Your task to perform on an android device: open app "File Manager" (install if not already installed) Image 0: 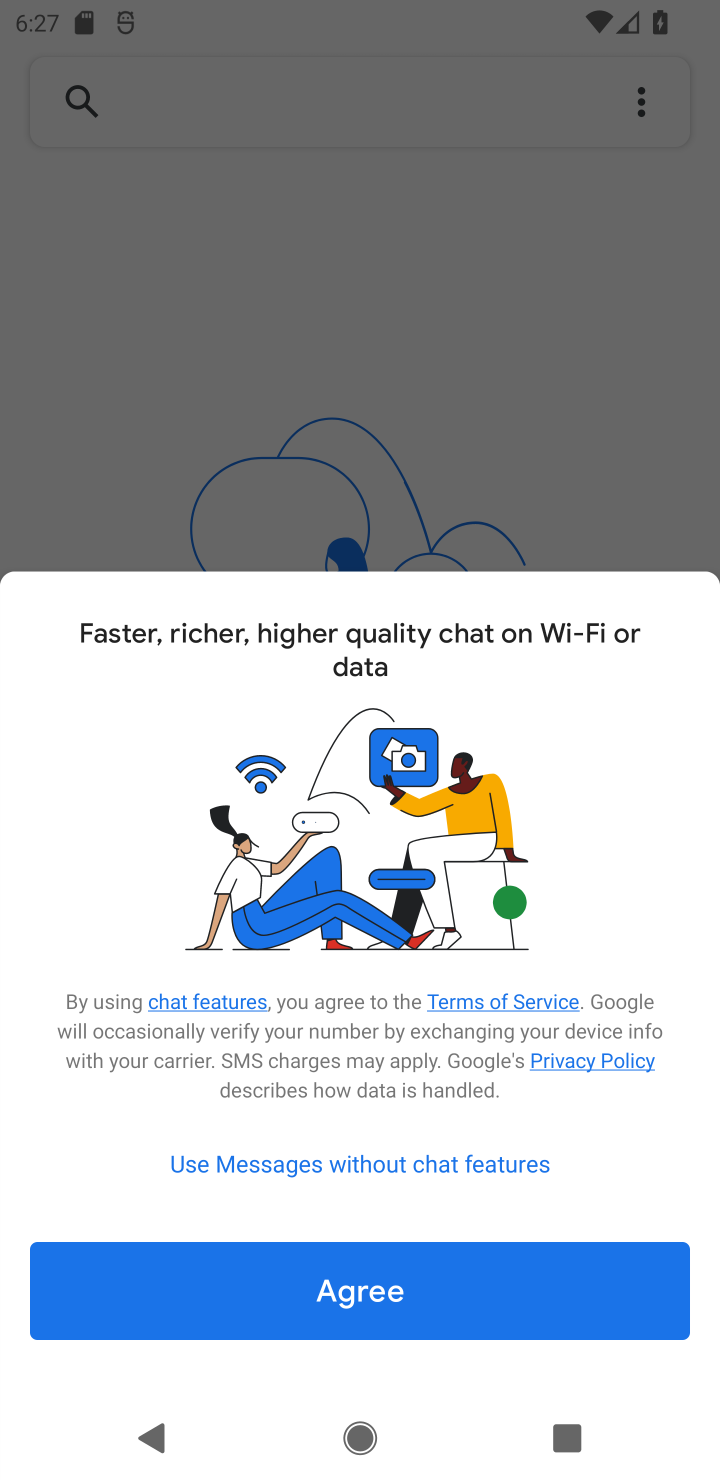
Step 0: press back button
Your task to perform on an android device: open app "File Manager" (install if not already installed) Image 1: 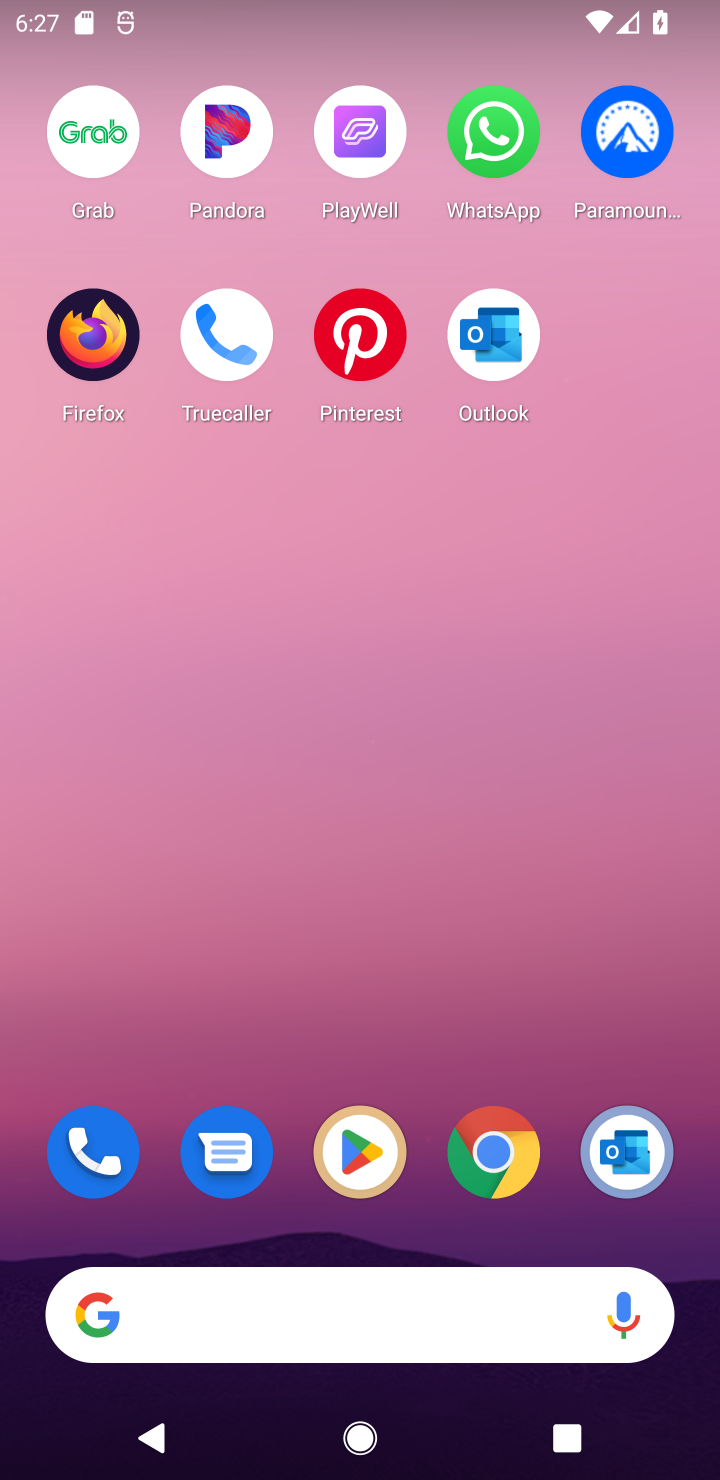
Step 1: click (385, 1146)
Your task to perform on an android device: open app "File Manager" (install if not already installed) Image 2: 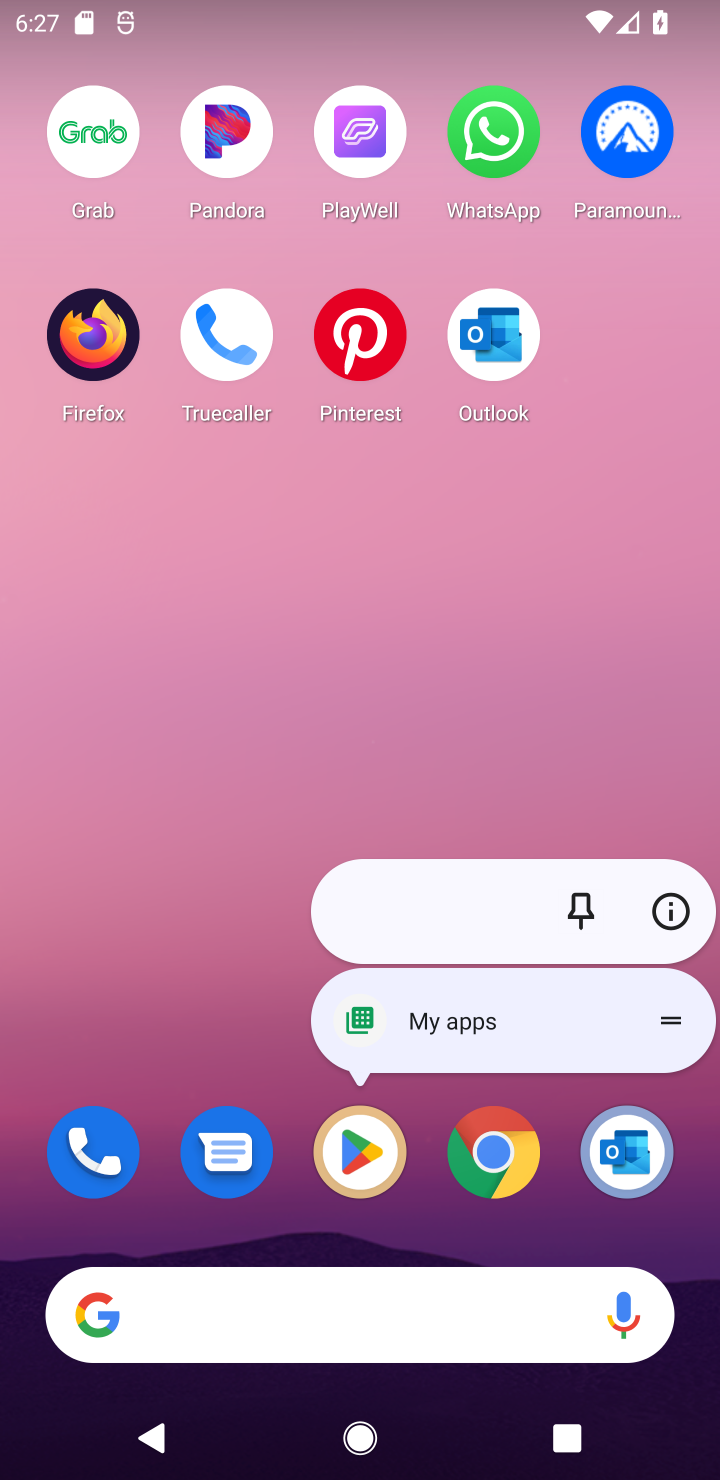
Step 2: click (353, 1150)
Your task to perform on an android device: open app "File Manager" (install if not already installed) Image 3: 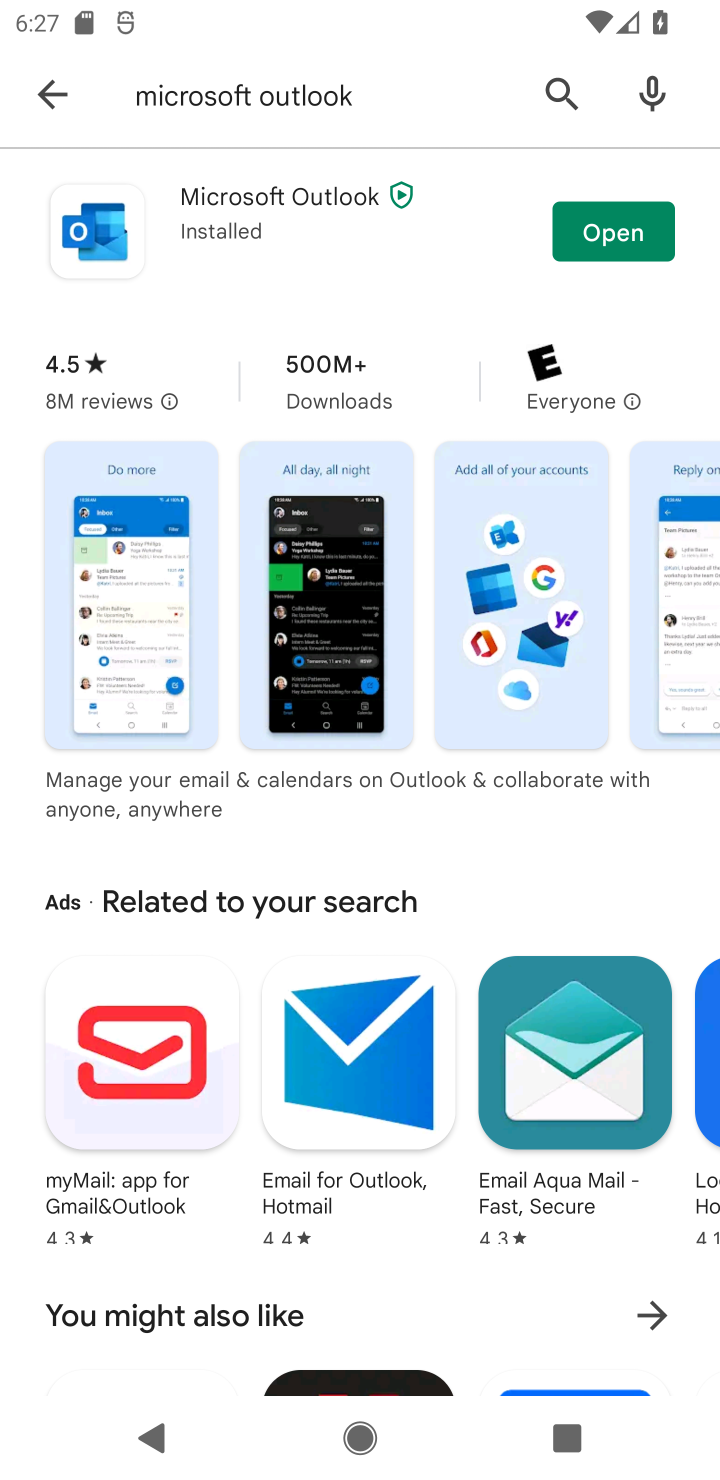
Step 3: click (552, 77)
Your task to perform on an android device: open app "File Manager" (install if not already installed) Image 4: 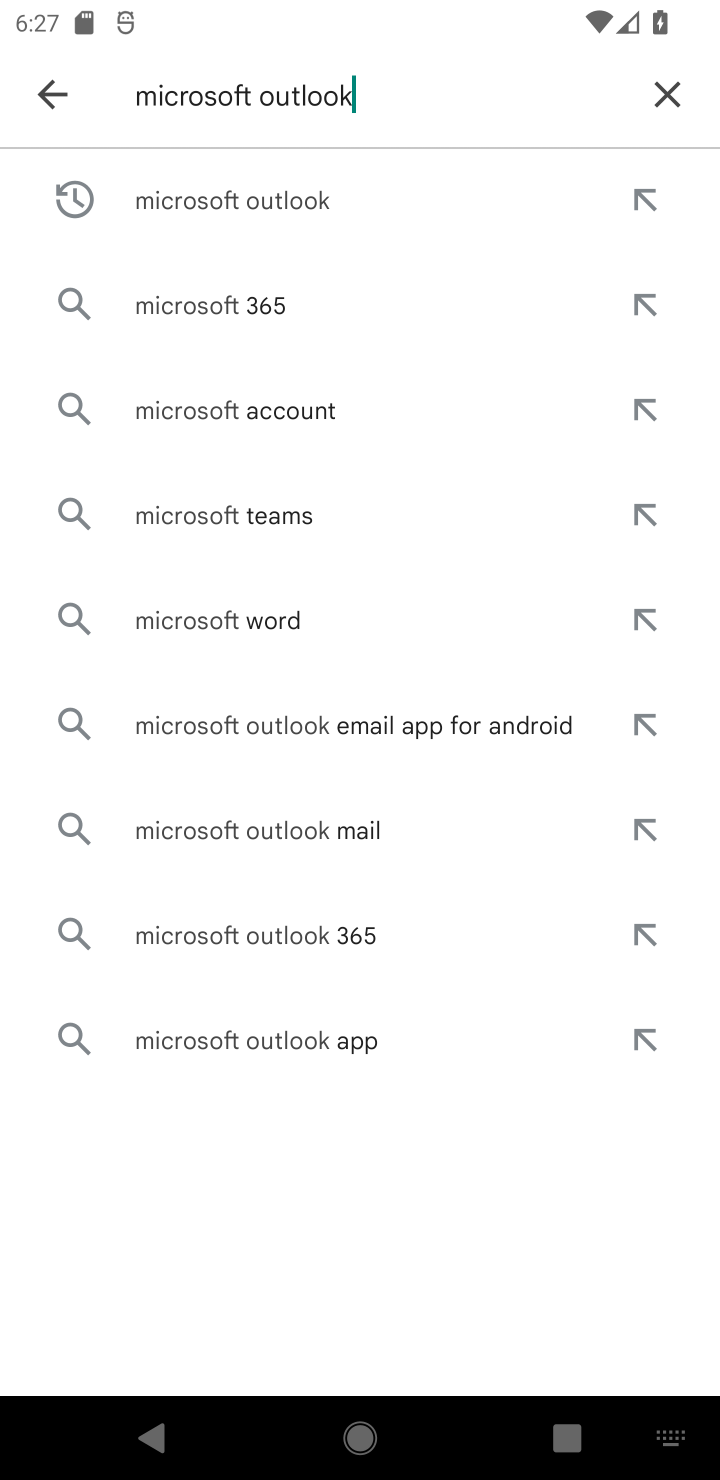
Step 4: click (652, 82)
Your task to perform on an android device: open app "File Manager" (install if not already installed) Image 5: 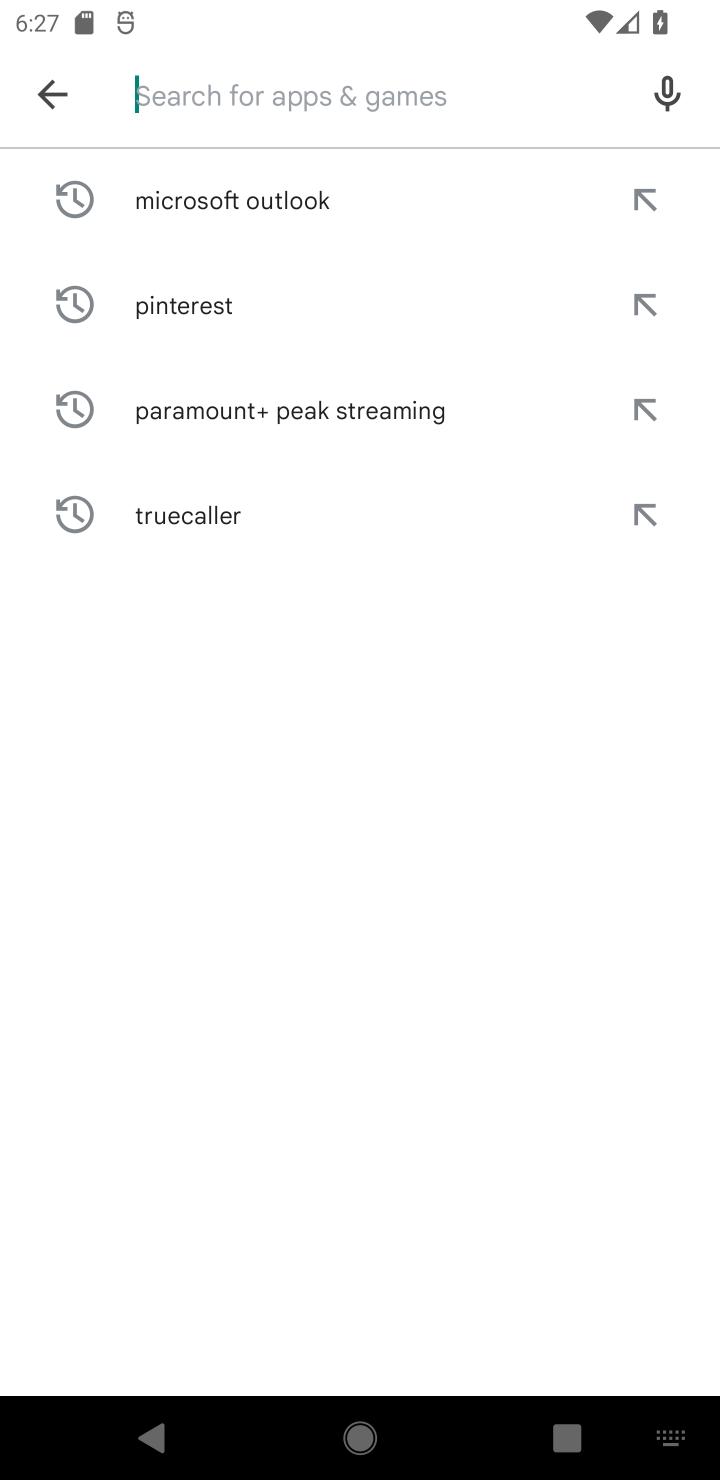
Step 5: click (181, 85)
Your task to perform on an android device: open app "File Manager" (install if not already installed) Image 6: 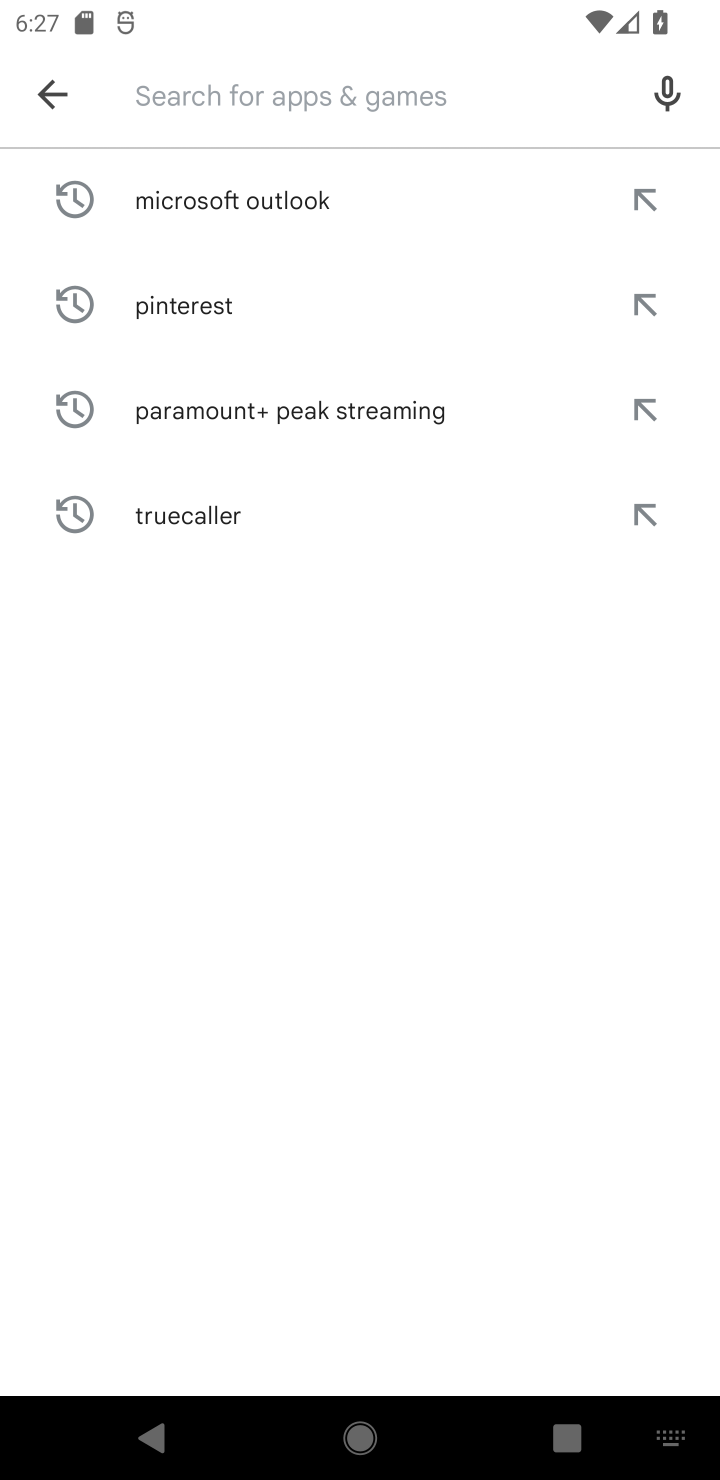
Step 6: type "File Manager"
Your task to perform on an android device: open app "File Manager" (install if not already installed) Image 7: 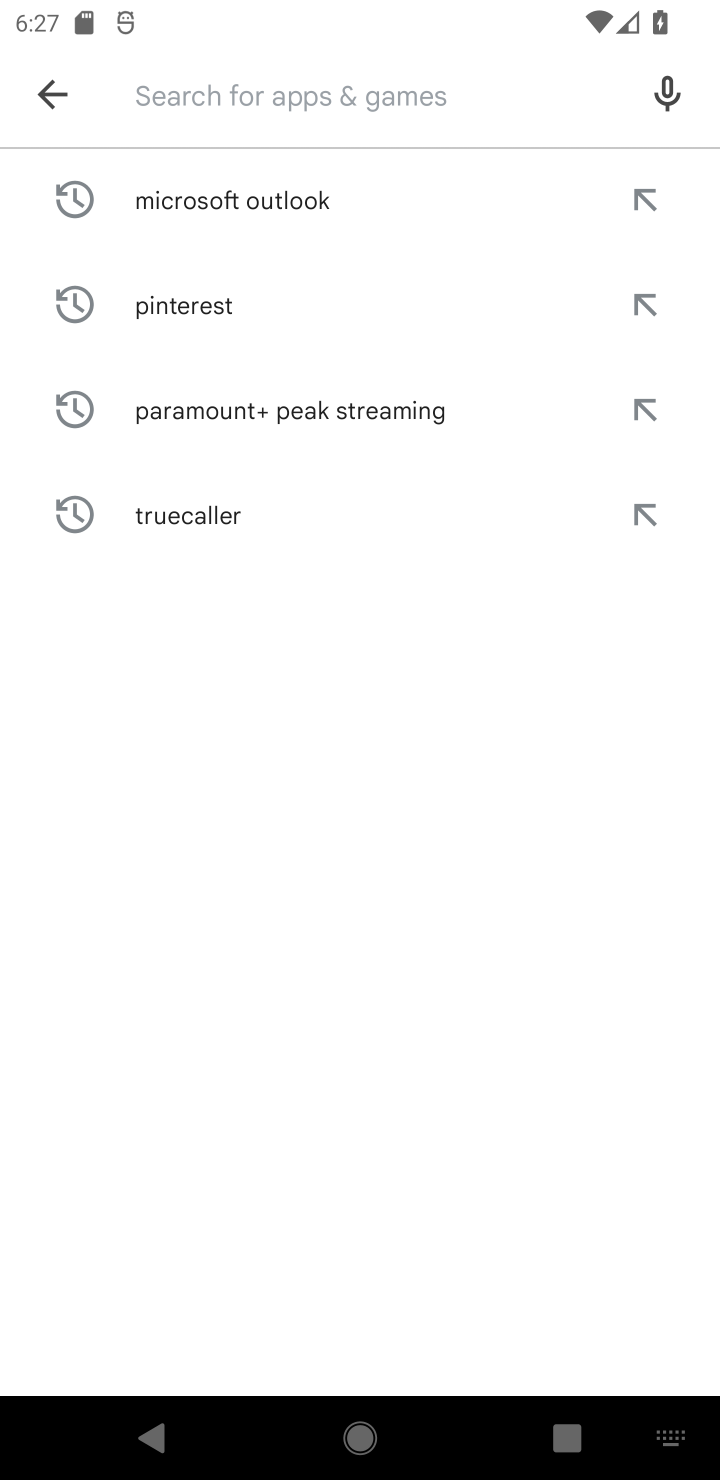
Step 7: click (440, 1171)
Your task to perform on an android device: open app "File Manager" (install if not already installed) Image 8: 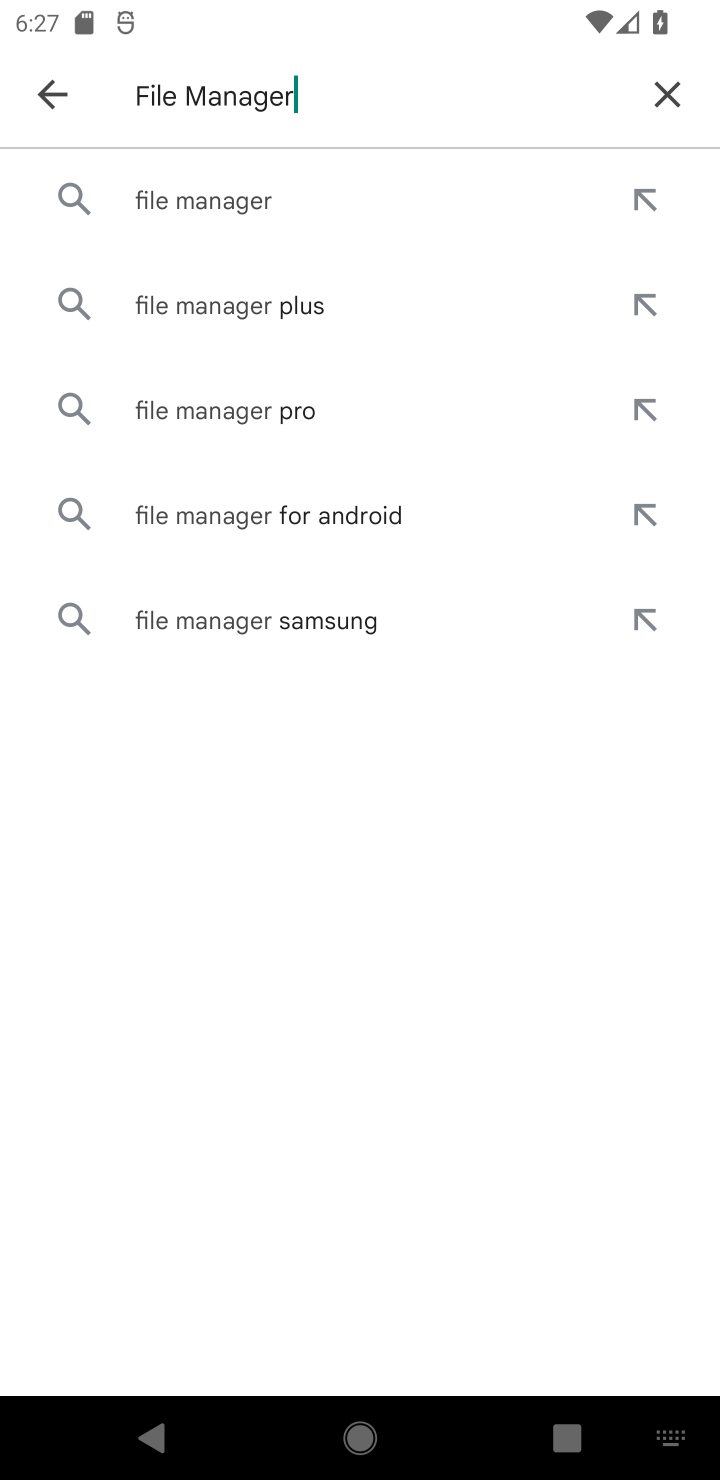
Step 8: click (242, 199)
Your task to perform on an android device: open app "File Manager" (install if not already installed) Image 9: 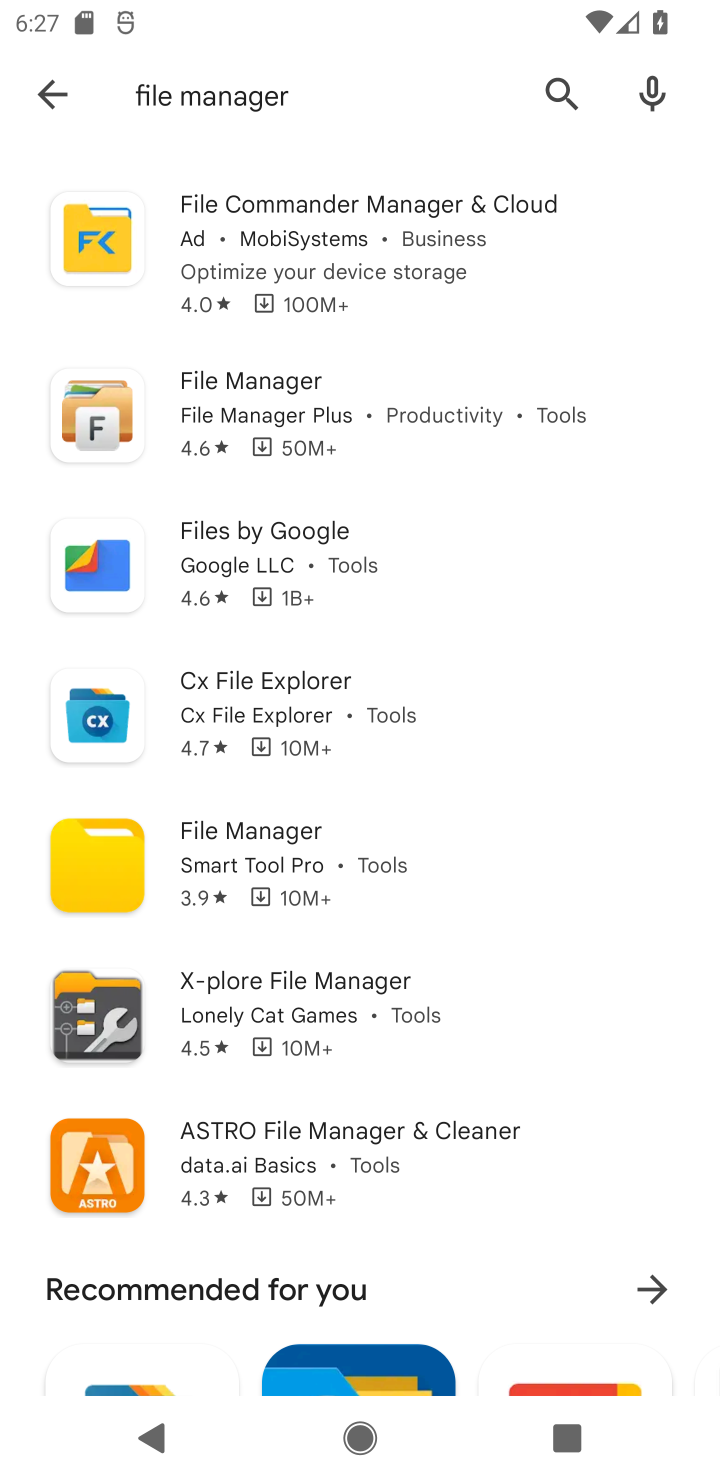
Step 9: click (280, 405)
Your task to perform on an android device: open app "File Manager" (install if not already installed) Image 10: 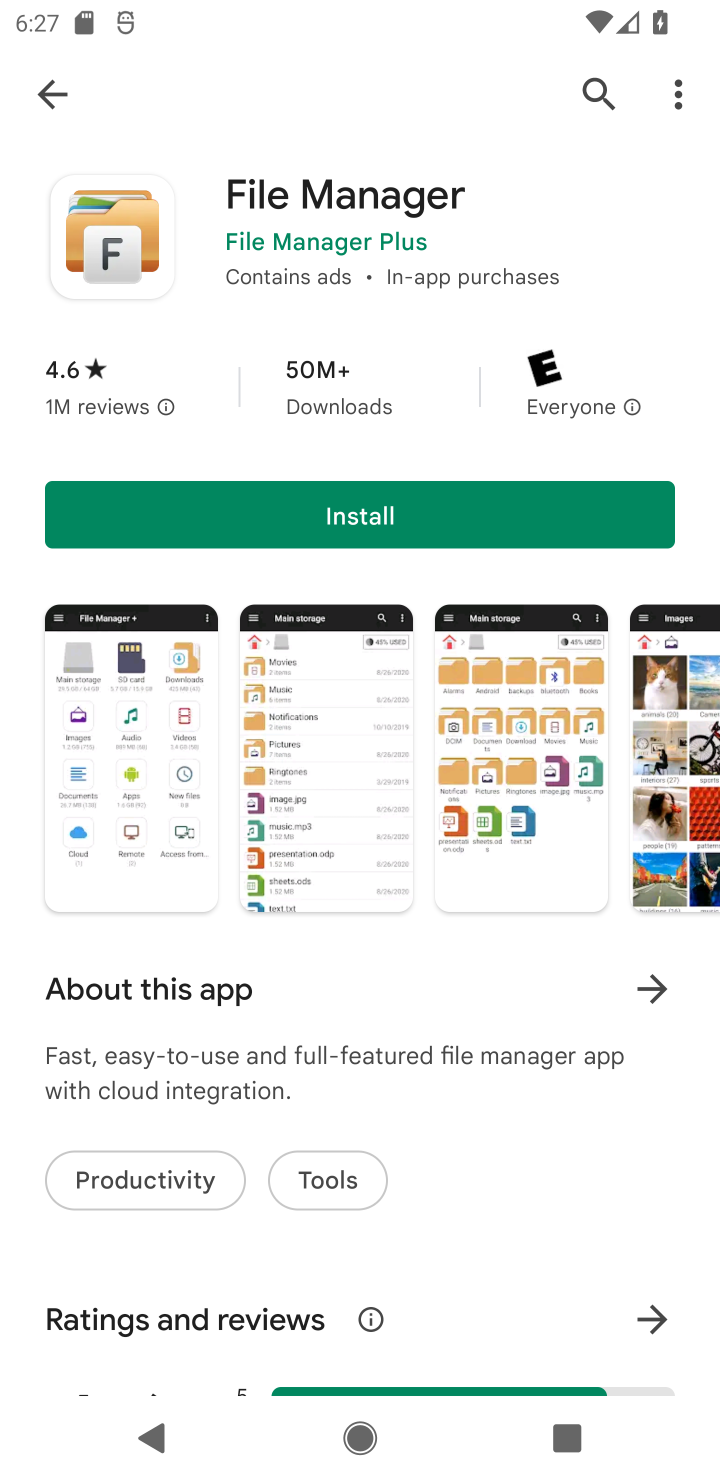
Step 10: click (366, 507)
Your task to perform on an android device: open app "File Manager" (install if not already installed) Image 11: 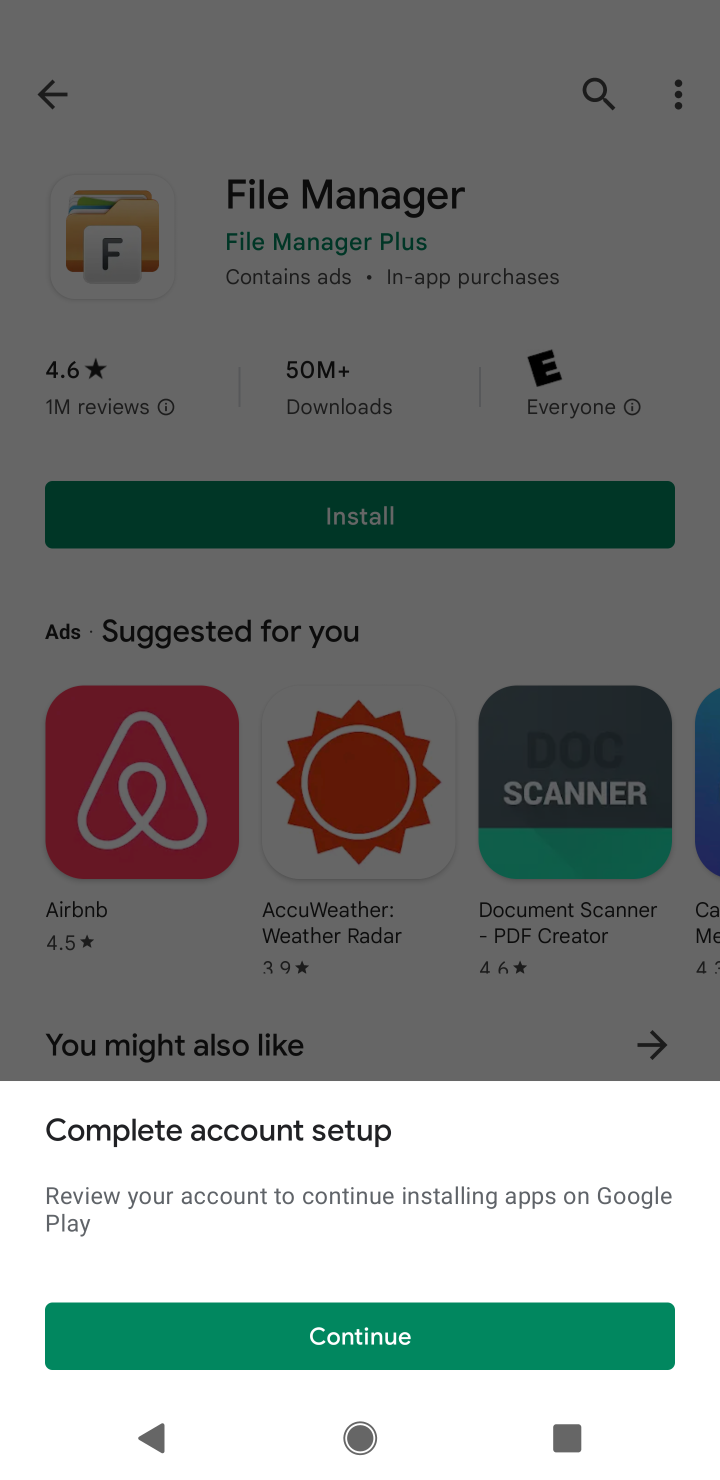
Step 11: click (301, 1349)
Your task to perform on an android device: open app "File Manager" (install if not already installed) Image 12: 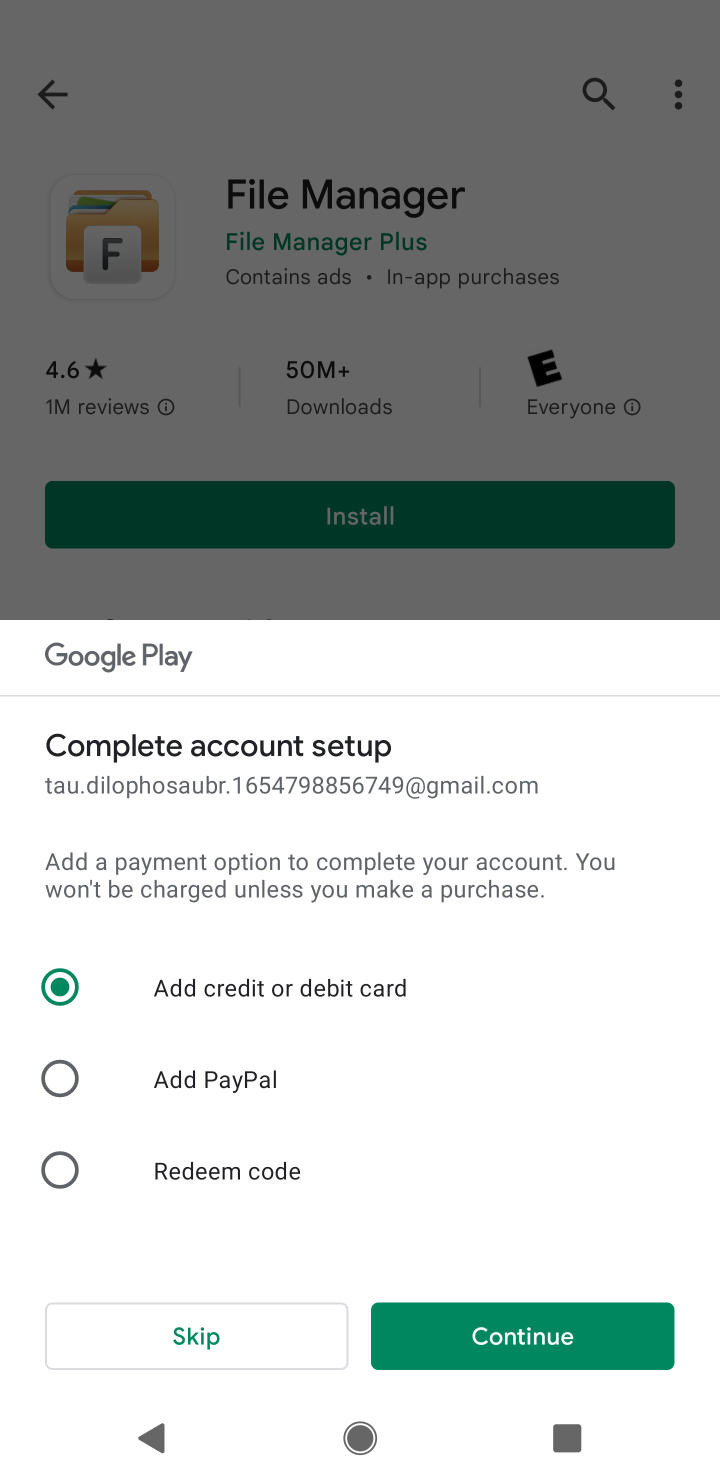
Step 12: click (204, 1344)
Your task to perform on an android device: open app "File Manager" (install if not already installed) Image 13: 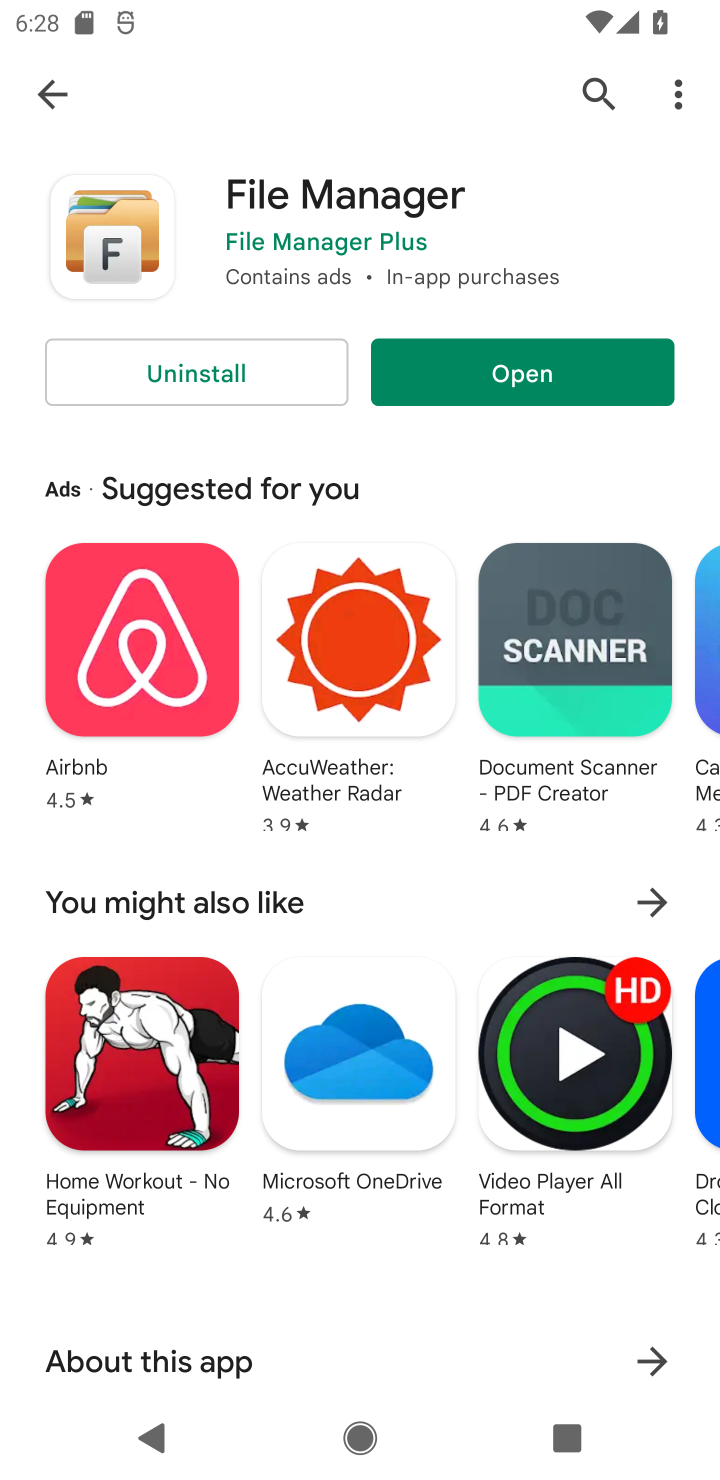
Step 13: click (563, 379)
Your task to perform on an android device: open app "File Manager" (install if not already installed) Image 14: 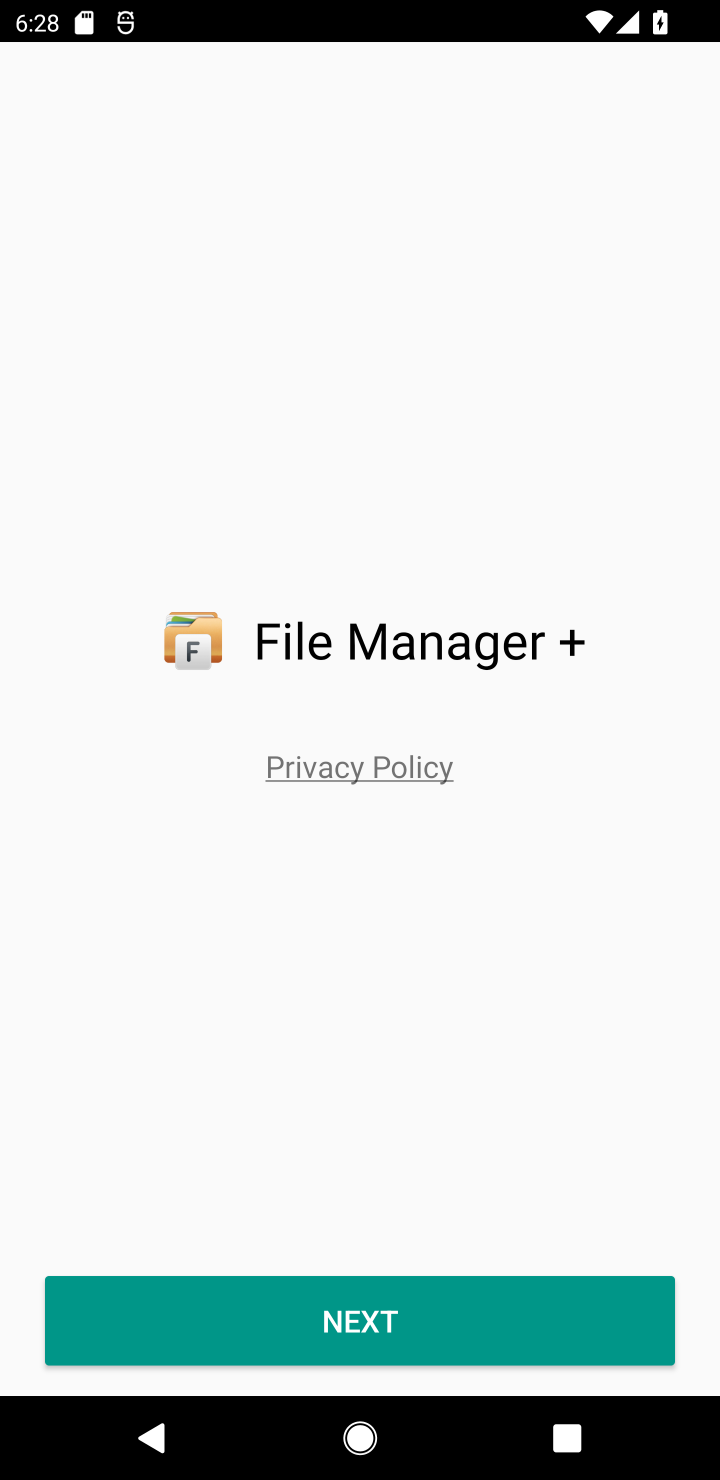
Step 14: task complete